Your task to perform on an android device: change the clock style Image 0: 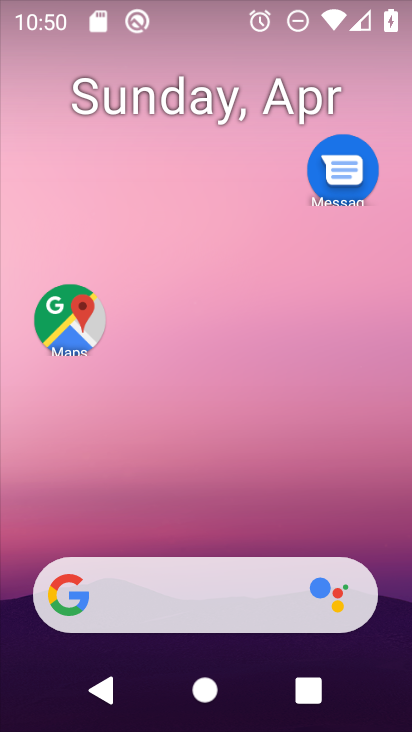
Step 0: drag from (203, 504) to (218, 113)
Your task to perform on an android device: change the clock style Image 1: 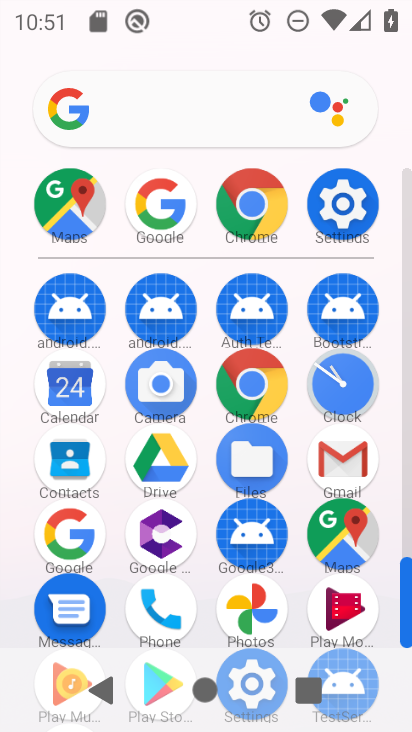
Step 1: click (350, 381)
Your task to perform on an android device: change the clock style Image 2: 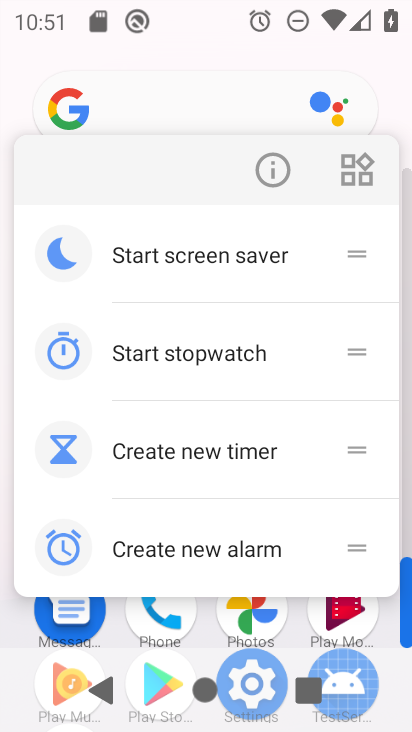
Step 2: click (262, 167)
Your task to perform on an android device: change the clock style Image 3: 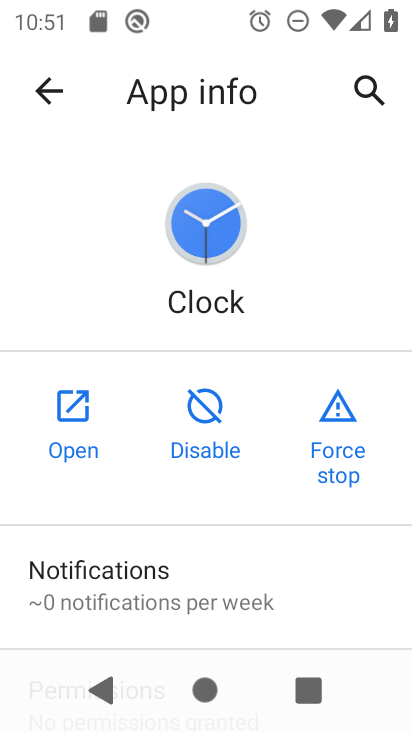
Step 3: click (92, 388)
Your task to perform on an android device: change the clock style Image 4: 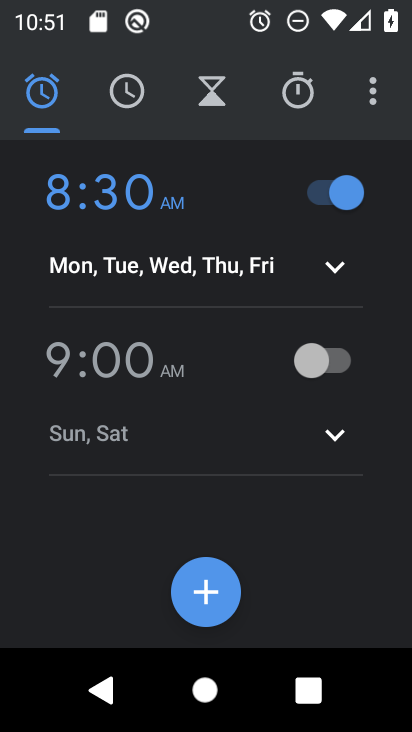
Step 4: click (75, 413)
Your task to perform on an android device: change the clock style Image 5: 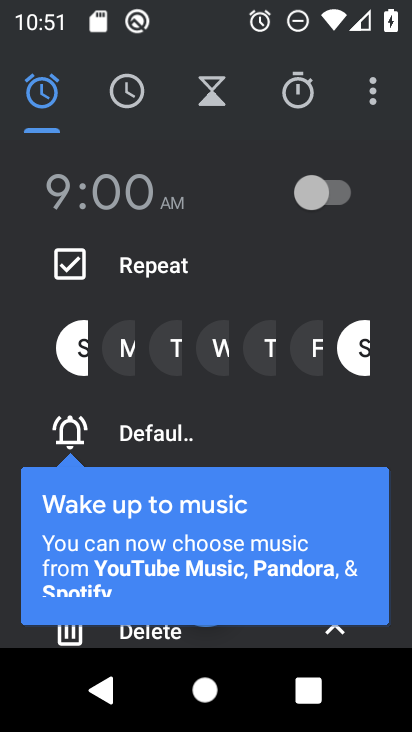
Step 5: click (362, 110)
Your task to perform on an android device: change the clock style Image 6: 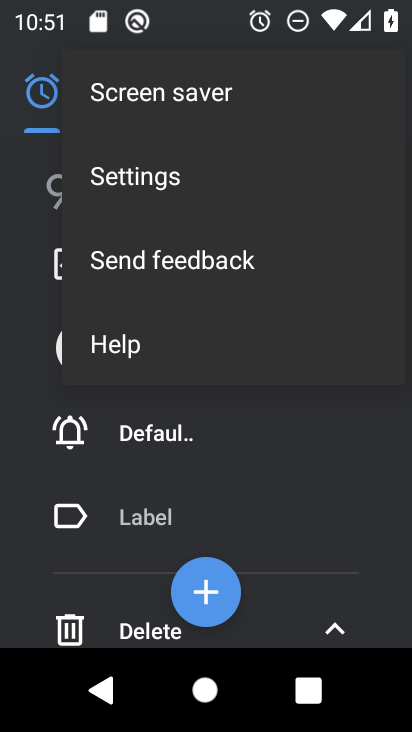
Step 6: click (170, 170)
Your task to perform on an android device: change the clock style Image 7: 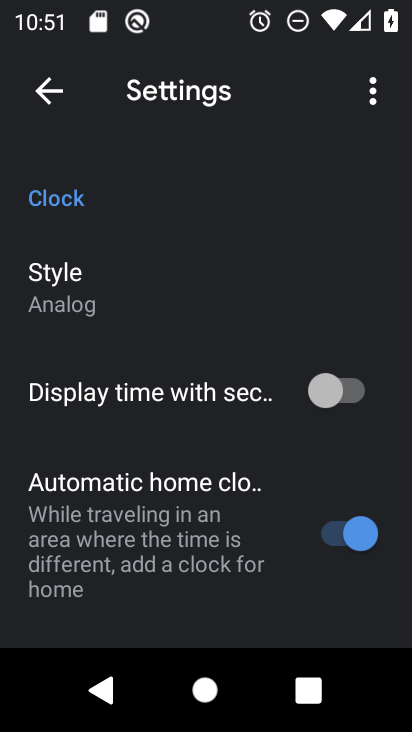
Step 7: click (119, 296)
Your task to perform on an android device: change the clock style Image 8: 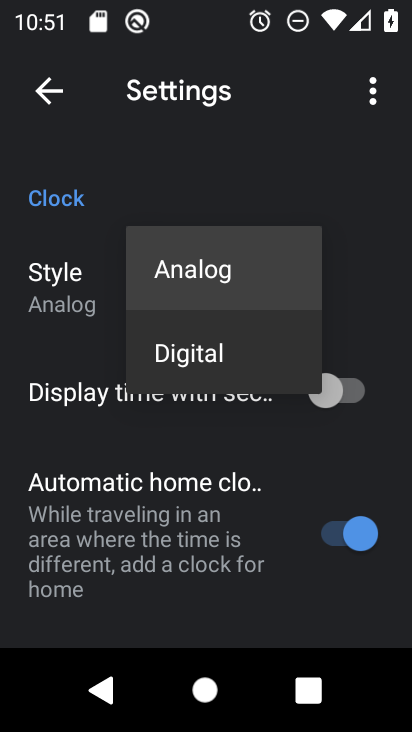
Step 8: click (223, 349)
Your task to perform on an android device: change the clock style Image 9: 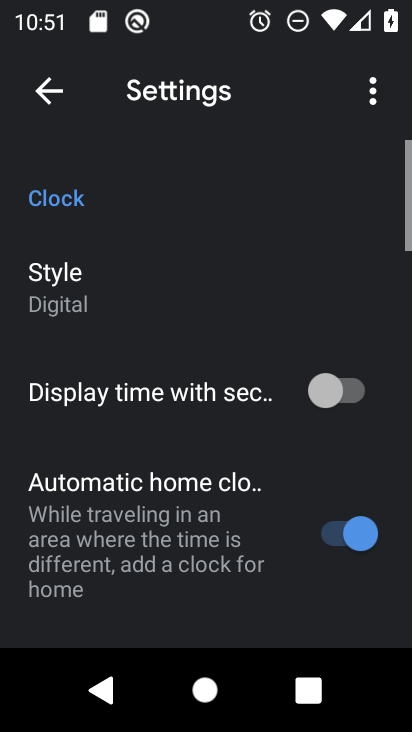
Step 9: task complete